Your task to perform on an android device: Open calendar and show me the second week of next month Image 0: 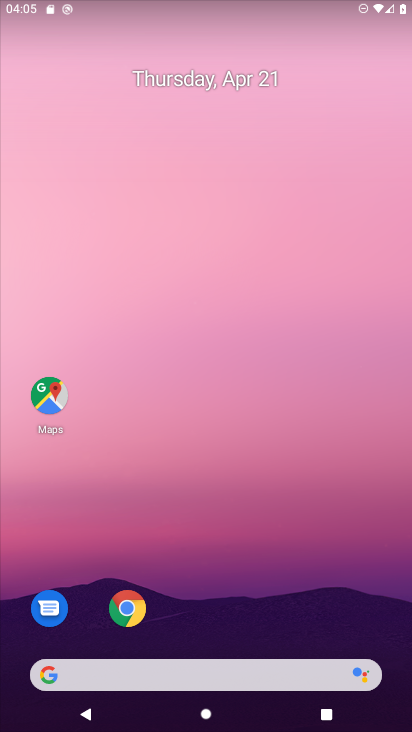
Step 0: drag from (226, 607) to (264, 228)
Your task to perform on an android device: Open calendar and show me the second week of next month Image 1: 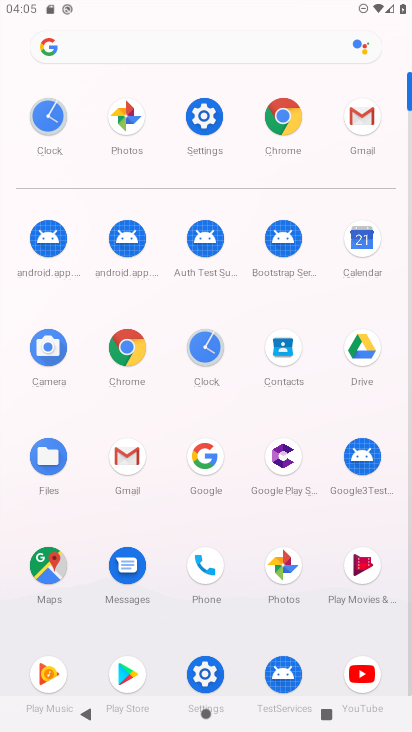
Step 1: drag from (249, 545) to (262, 202)
Your task to perform on an android device: Open calendar and show me the second week of next month Image 2: 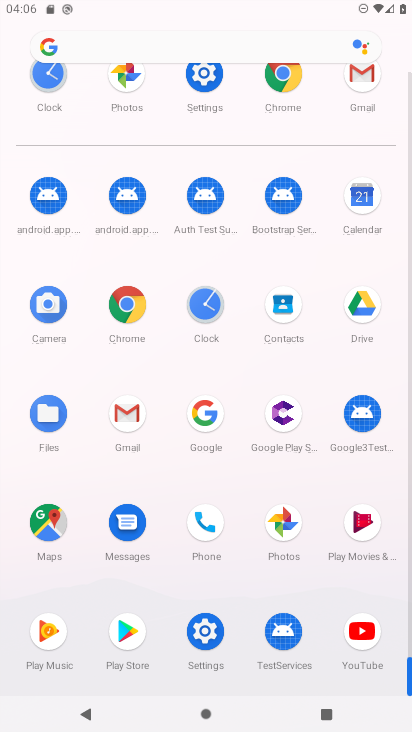
Step 2: click (364, 195)
Your task to perform on an android device: Open calendar and show me the second week of next month Image 3: 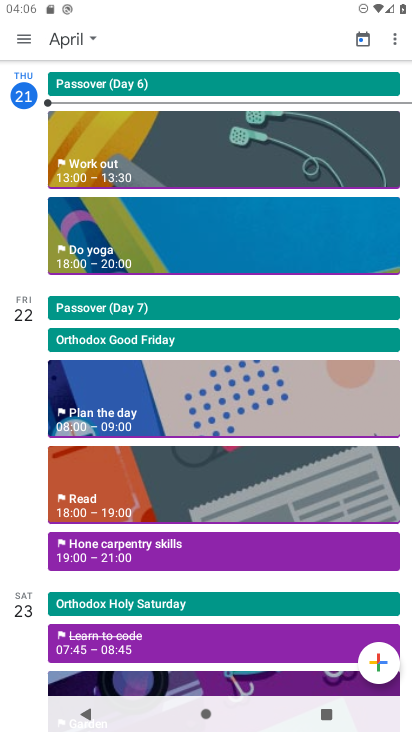
Step 3: click (16, 38)
Your task to perform on an android device: Open calendar and show me the second week of next month Image 4: 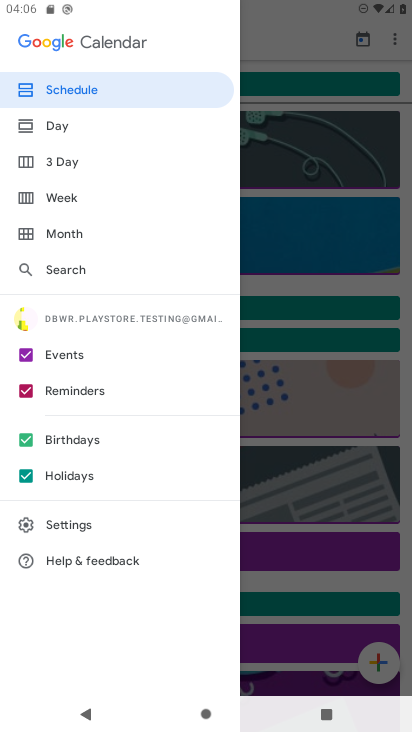
Step 4: click (84, 226)
Your task to perform on an android device: Open calendar and show me the second week of next month Image 5: 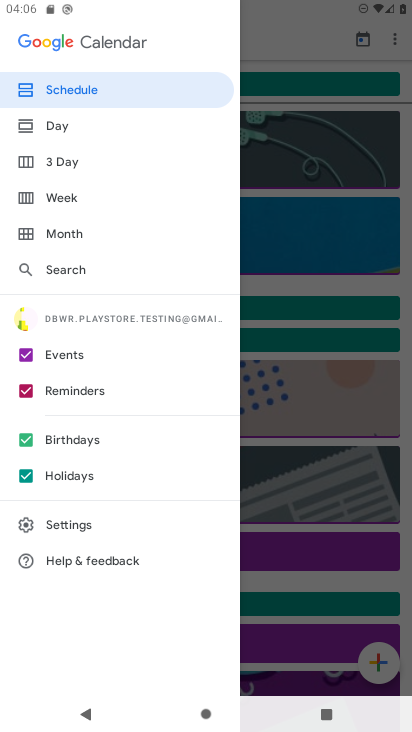
Step 5: click (84, 230)
Your task to perform on an android device: Open calendar and show me the second week of next month Image 6: 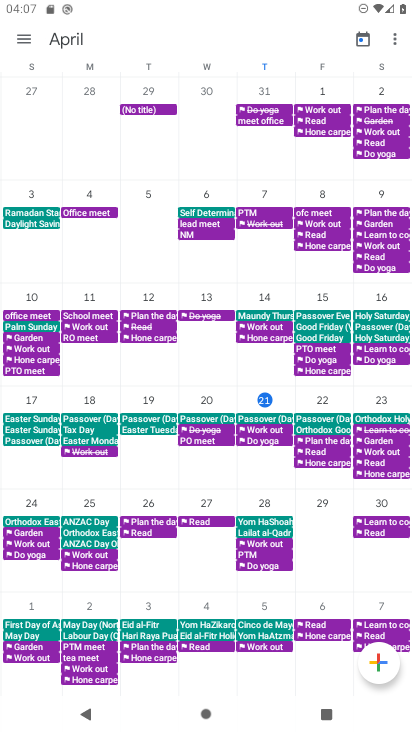
Step 6: task complete